Your task to perform on an android device: Play the last video I watched on Youtube Image 0: 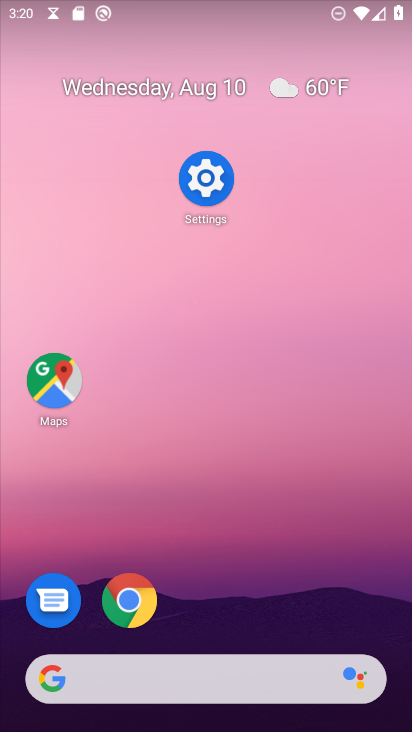
Step 0: drag from (271, 606) to (253, 31)
Your task to perform on an android device: Play the last video I watched on Youtube Image 1: 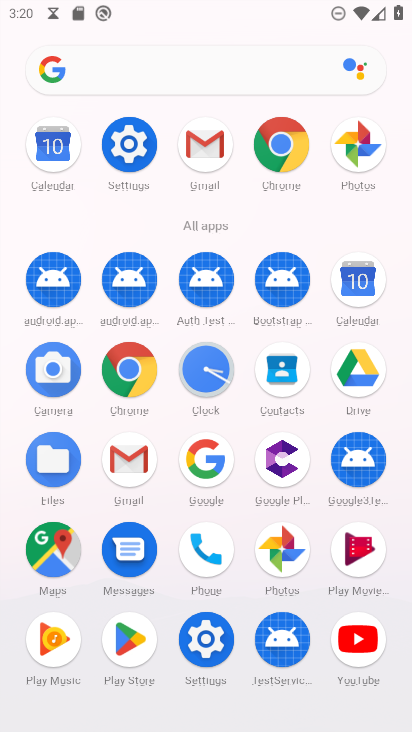
Step 1: click (365, 643)
Your task to perform on an android device: Play the last video I watched on Youtube Image 2: 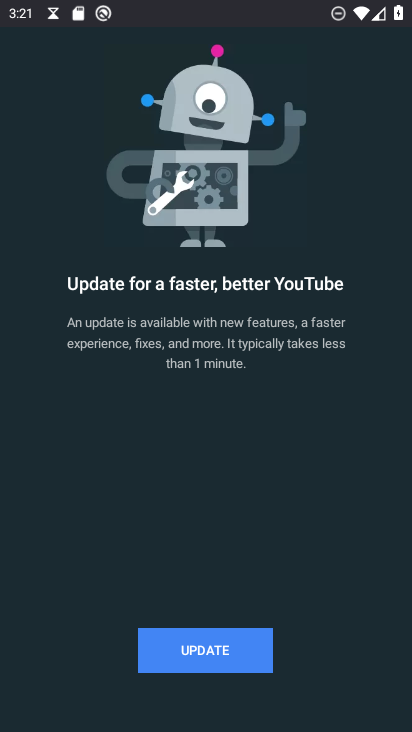
Step 2: click (209, 654)
Your task to perform on an android device: Play the last video I watched on Youtube Image 3: 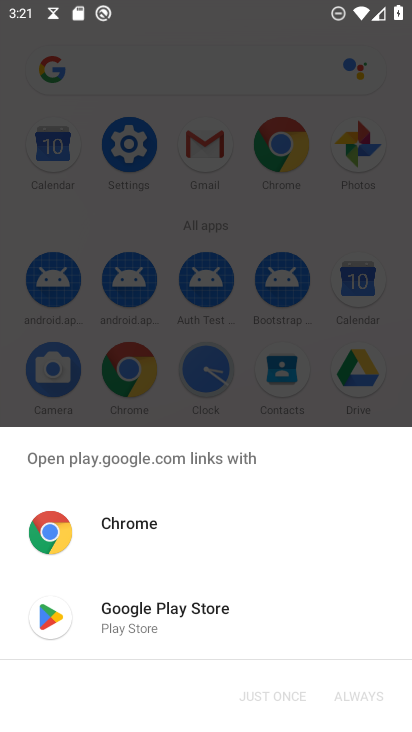
Step 3: click (151, 599)
Your task to perform on an android device: Play the last video I watched on Youtube Image 4: 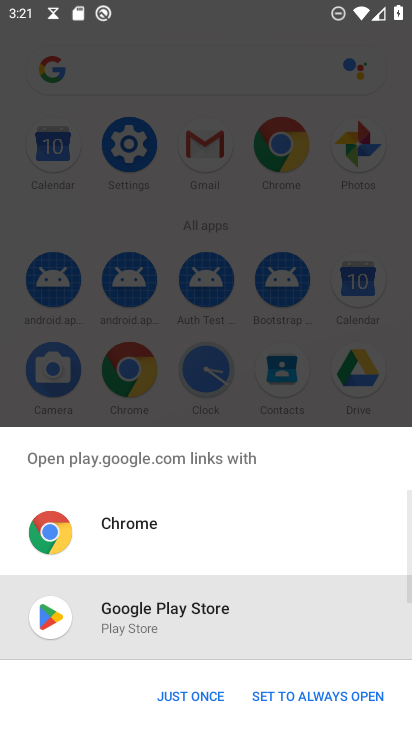
Step 4: click (191, 692)
Your task to perform on an android device: Play the last video I watched on Youtube Image 5: 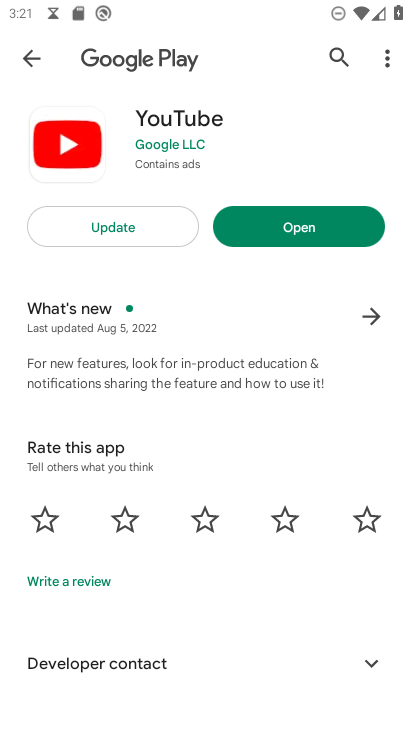
Step 5: click (149, 231)
Your task to perform on an android device: Play the last video I watched on Youtube Image 6: 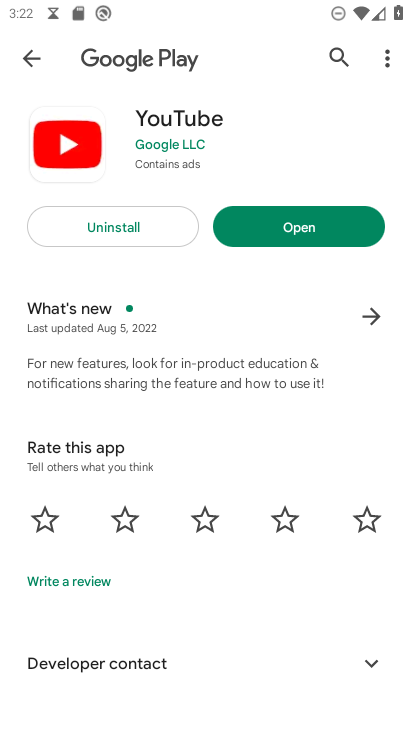
Step 6: click (246, 239)
Your task to perform on an android device: Play the last video I watched on Youtube Image 7: 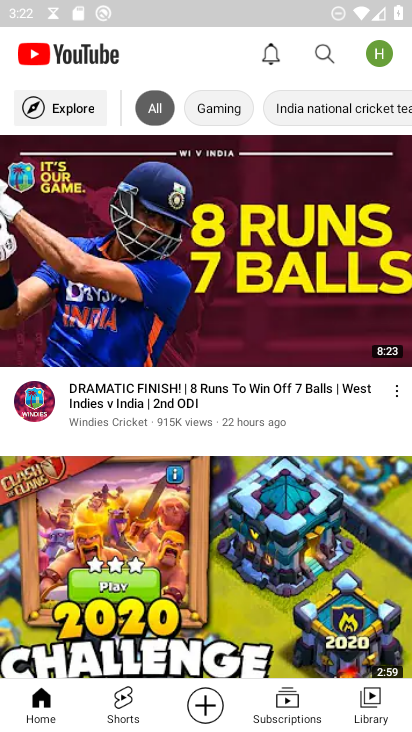
Step 7: click (364, 702)
Your task to perform on an android device: Play the last video I watched on Youtube Image 8: 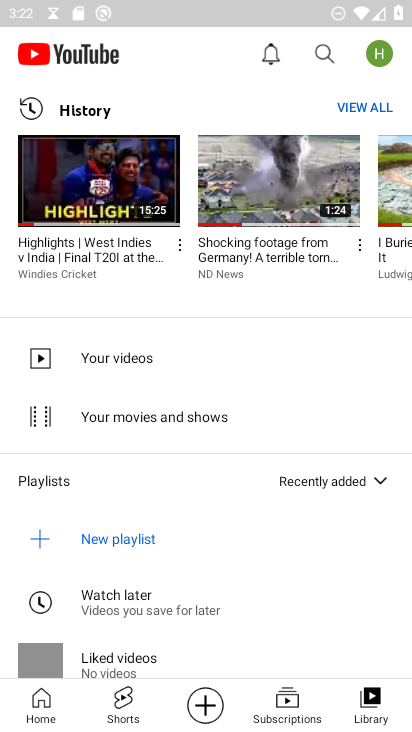
Step 8: click (77, 146)
Your task to perform on an android device: Play the last video I watched on Youtube Image 9: 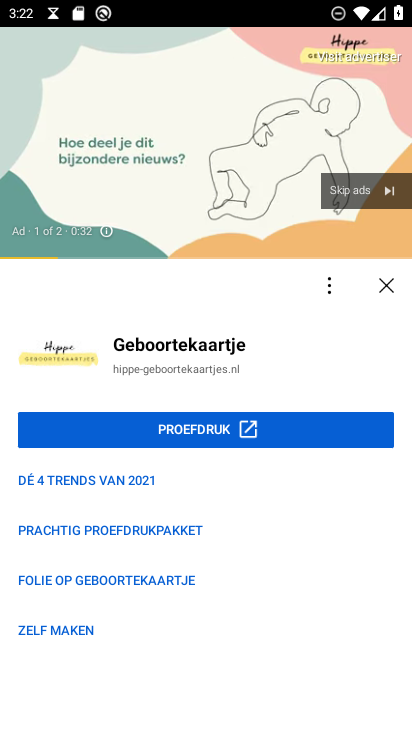
Step 9: click (388, 281)
Your task to perform on an android device: Play the last video I watched on Youtube Image 10: 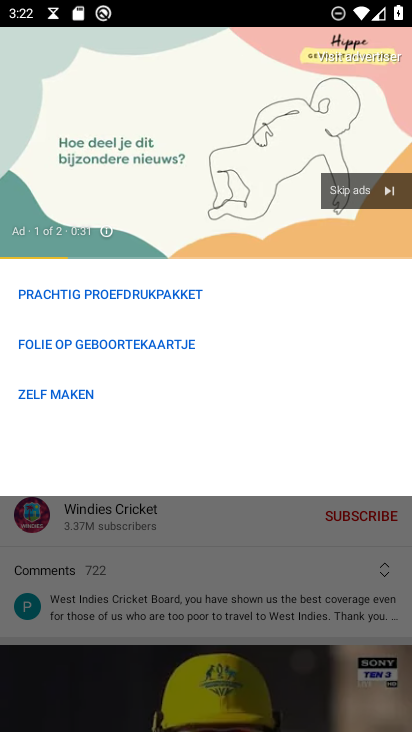
Step 10: click (339, 194)
Your task to perform on an android device: Play the last video I watched on Youtube Image 11: 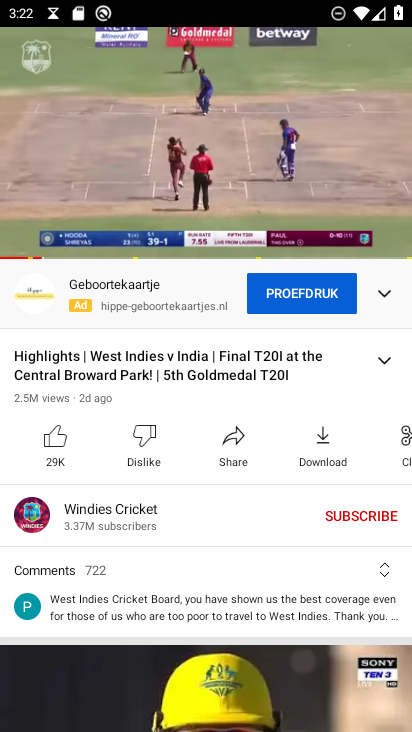
Step 11: task complete